Your task to perform on an android device: Go to wifi settings Image 0: 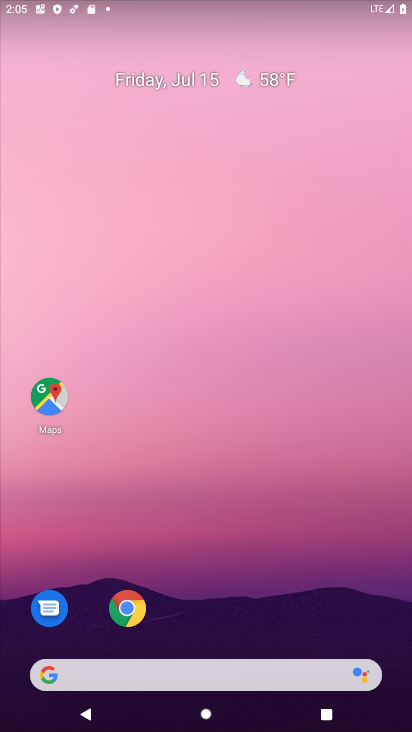
Step 0: drag from (185, 1) to (212, 422)
Your task to perform on an android device: Go to wifi settings Image 1: 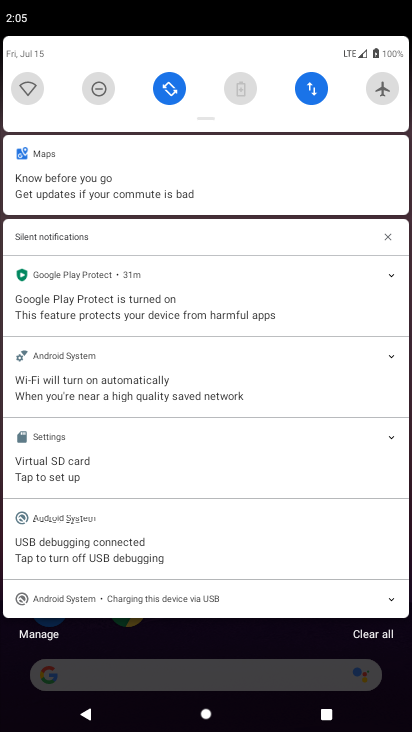
Step 1: click (33, 83)
Your task to perform on an android device: Go to wifi settings Image 2: 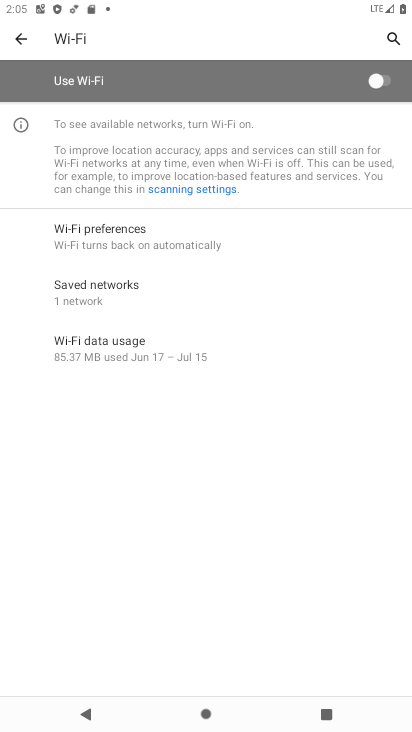
Step 2: task complete